Your task to perform on an android device: turn on priority inbox in the gmail app Image 0: 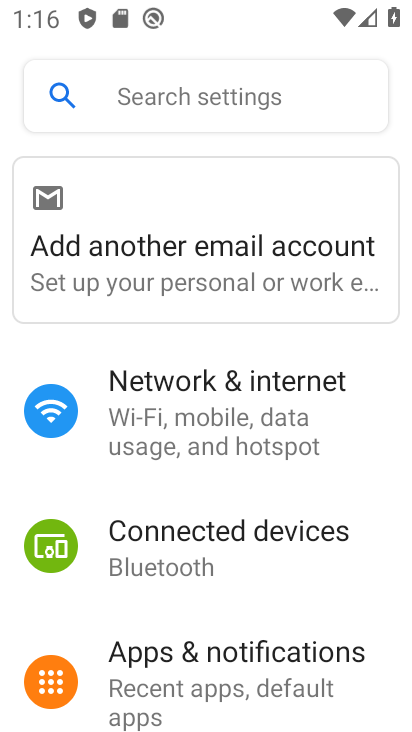
Step 0: press back button
Your task to perform on an android device: turn on priority inbox in the gmail app Image 1: 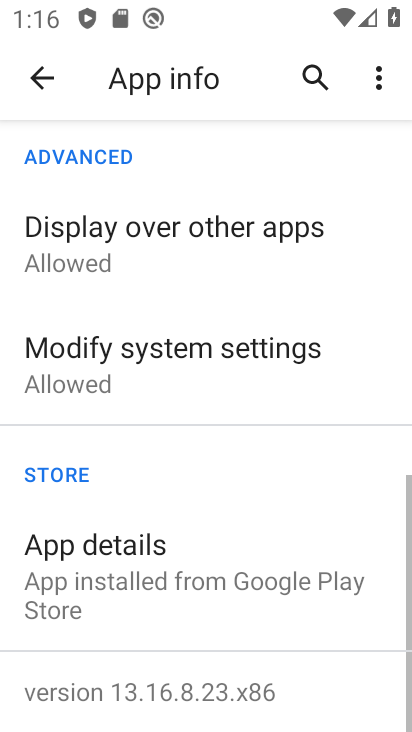
Step 1: press back button
Your task to perform on an android device: turn on priority inbox in the gmail app Image 2: 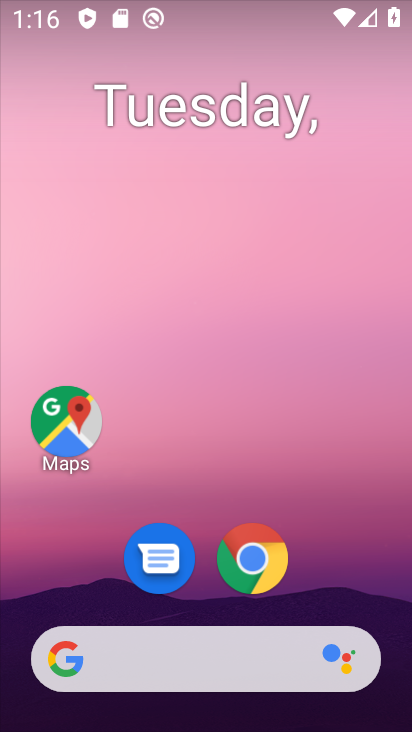
Step 2: drag from (201, 583) to (308, 61)
Your task to perform on an android device: turn on priority inbox in the gmail app Image 3: 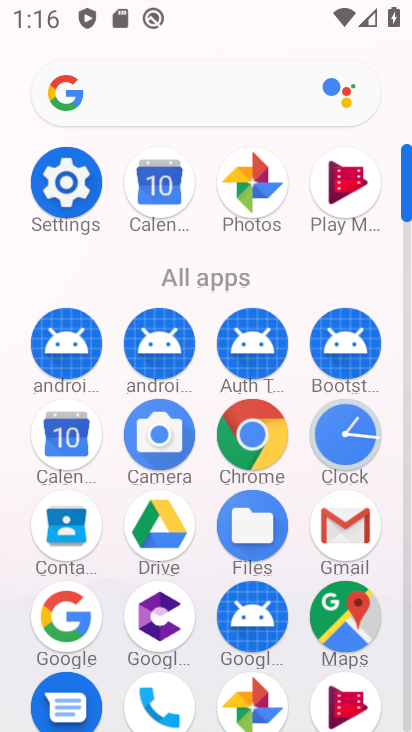
Step 3: click (325, 523)
Your task to perform on an android device: turn on priority inbox in the gmail app Image 4: 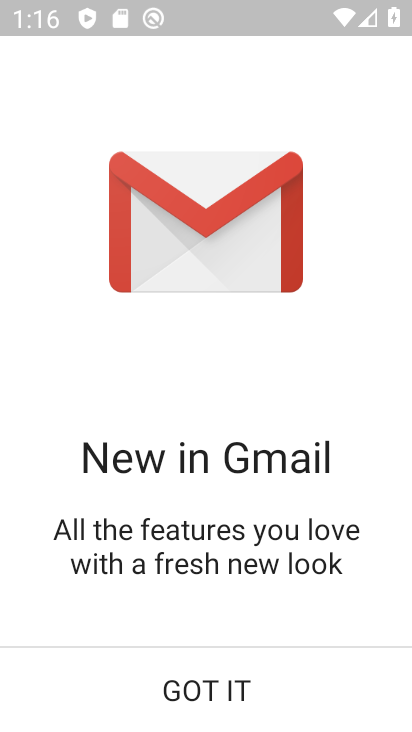
Step 4: click (194, 676)
Your task to perform on an android device: turn on priority inbox in the gmail app Image 5: 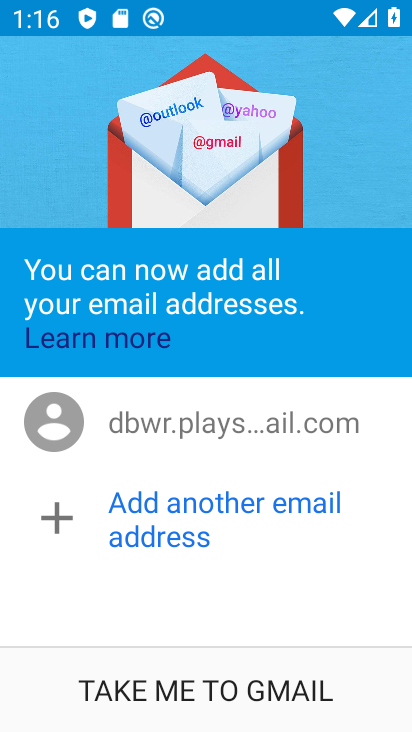
Step 5: click (188, 671)
Your task to perform on an android device: turn on priority inbox in the gmail app Image 6: 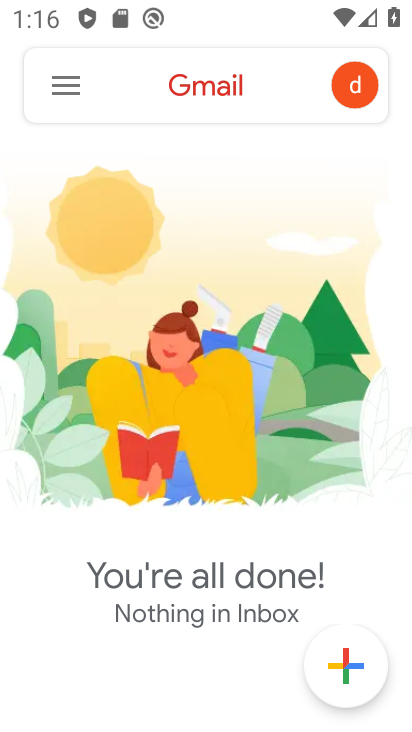
Step 6: click (61, 88)
Your task to perform on an android device: turn on priority inbox in the gmail app Image 7: 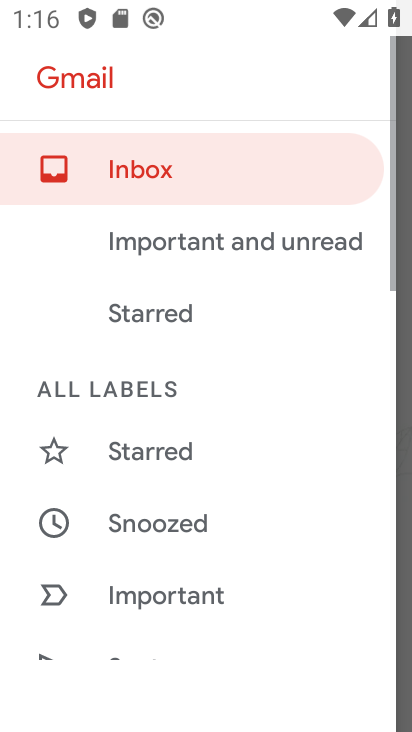
Step 7: drag from (206, 631) to (371, 48)
Your task to perform on an android device: turn on priority inbox in the gmail app Image 8: 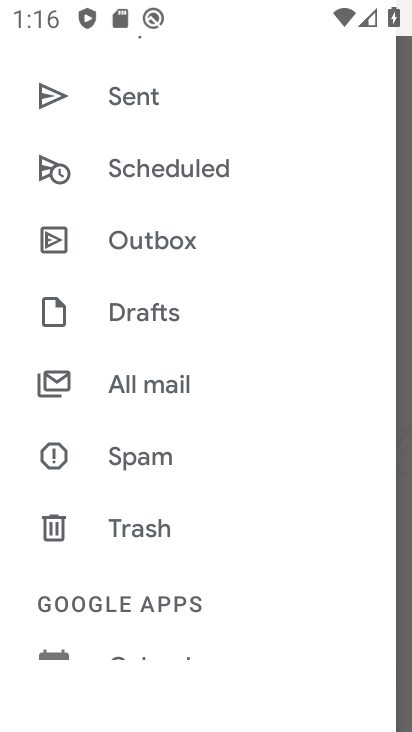
Step 8: drag from (192, 611) to (335, 108)
Your task to perform on an android device: turn on priority inbox in the gmail app Image 9: 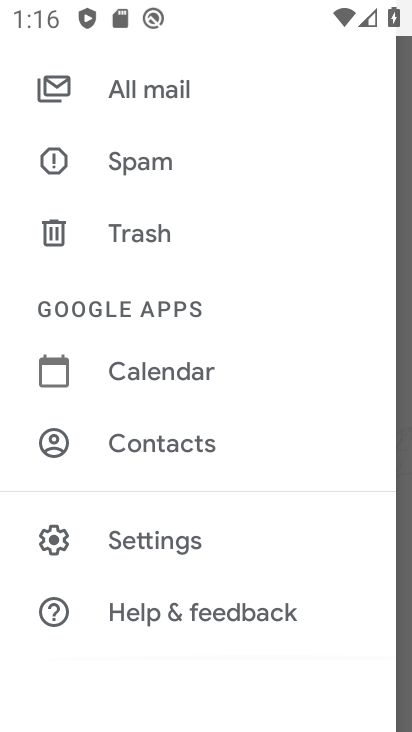
Step 9: click (124, 532)
Your task to perform on an android device: turn on priority inbox in the gmail app Image 10: 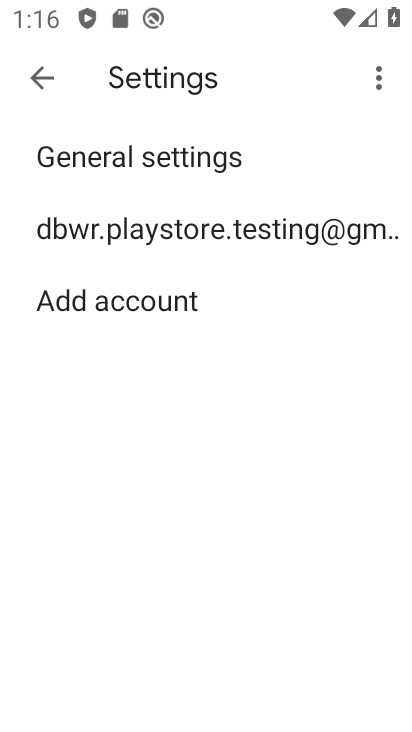
Step 10: click (161, 225)
Your task to perform on an android device: turn on priority inbox in the gmail app Image 11: 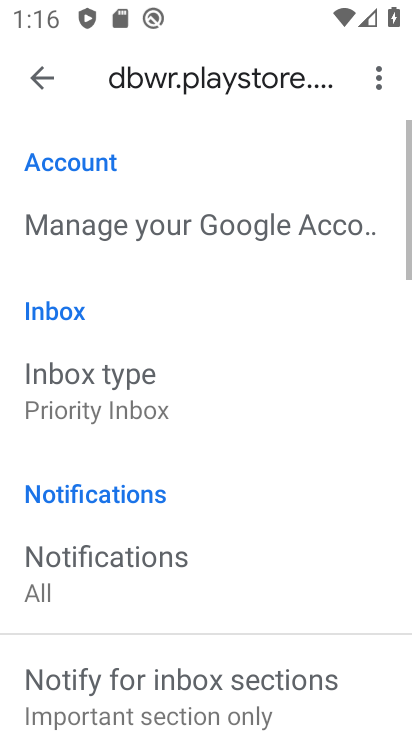
Step 11: click (92, 382)
Your task to perform on an android device: turn on priority inbox in the gmail app Image 12: 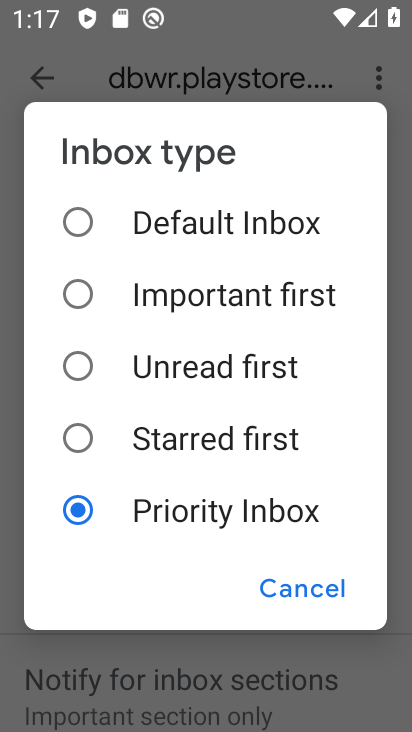
Step 12: task complete